Your task to perform on an android device: Open Wikipedia Image 0: 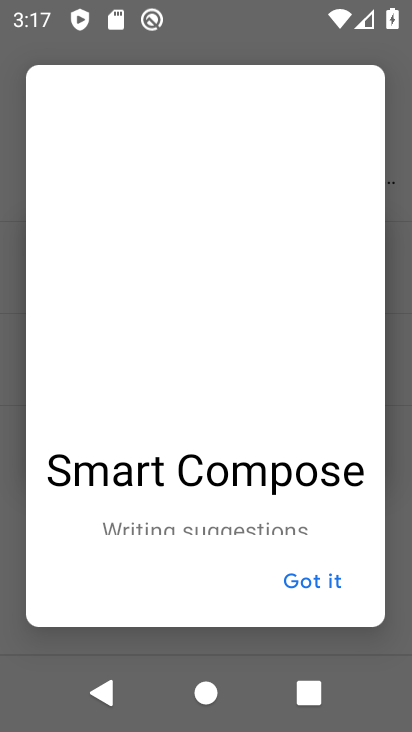
Step 0: press home button
Your task to perform on an android device: Open Wikipedia Image 1: 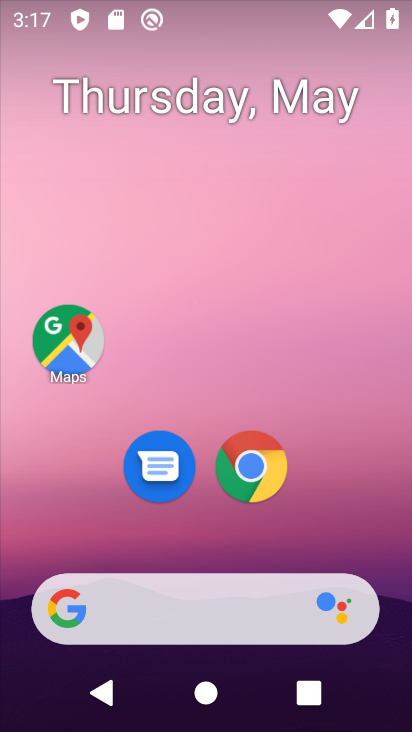
Step 1: click (273, 477)
Your task to perform on an android device: Open Wikipedia Image 2: 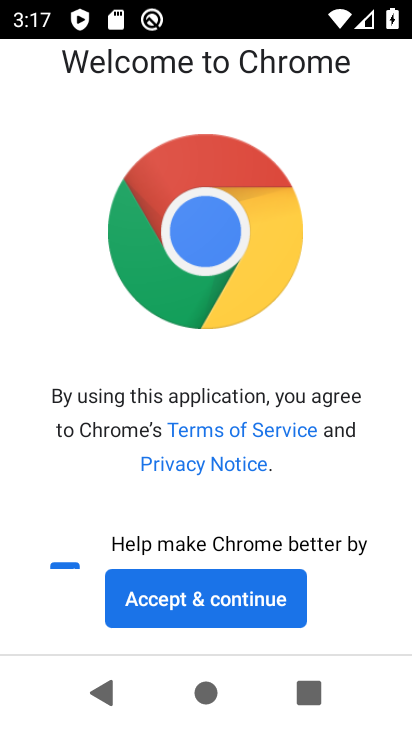
Step 2: click (253, 595)
Your task to perform on an android device: Open Wikipedia Image 3: 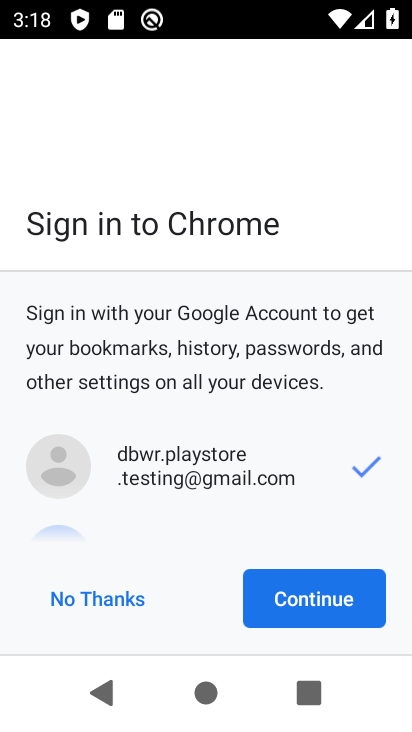
Step 3: click (265, 587)
Your task to perform on an android device: Open Wikipedia Image 4: 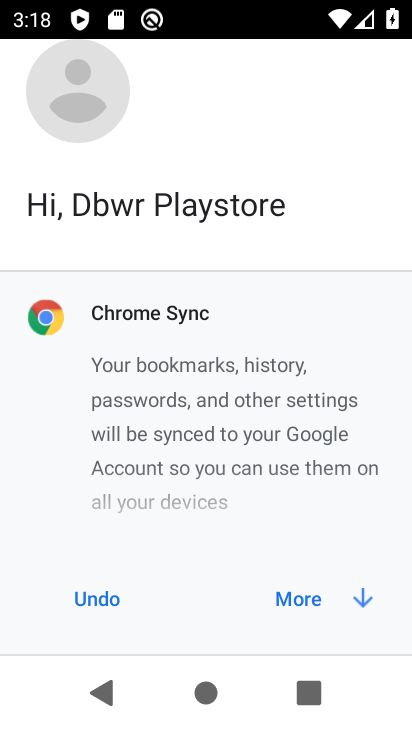
Step 4: click (290, 595)
Your task to perform on an android device: Open Wikipedia Image 5: 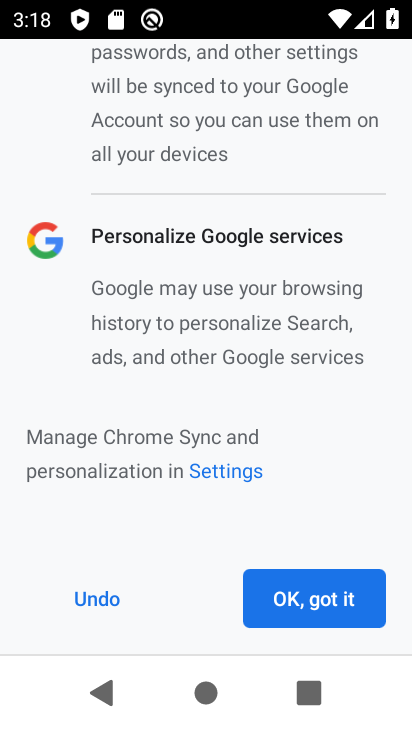
Step 5: click (349, 605)
Your task to perform on an android device: Open Wikipedia Image 6: 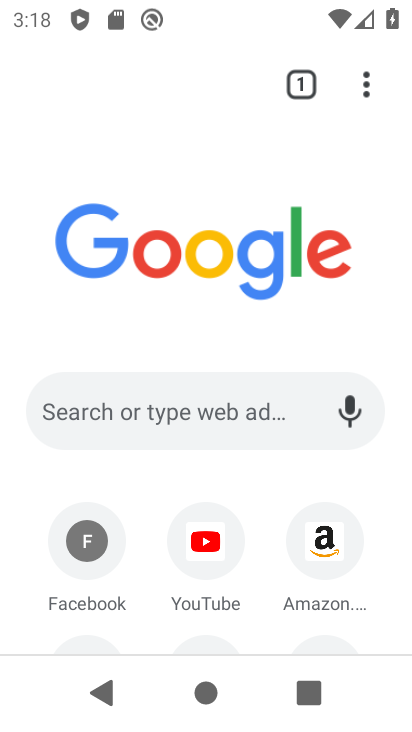
Step 6: drag from (206, 623) to (299, 423)
Your task to perform on an android device: Open Wikipedia Image 7: 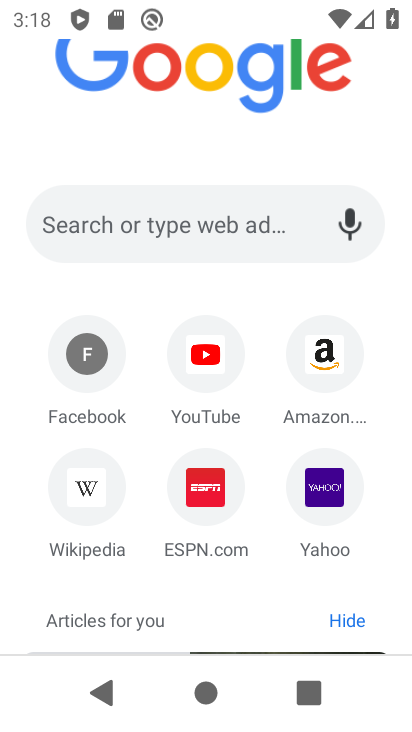
Step 7: click (117, 507)
Your task to perform on an android device: Open Wikipedia Image 8: 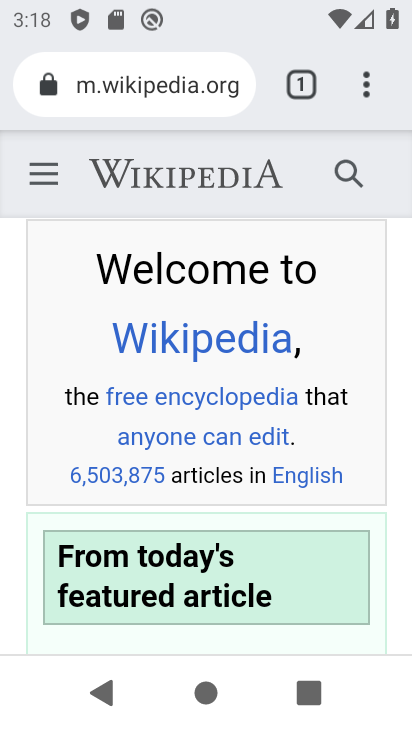
Step 8: task complete